Your task to perform on an android device: empty trash in google photos Image 0: 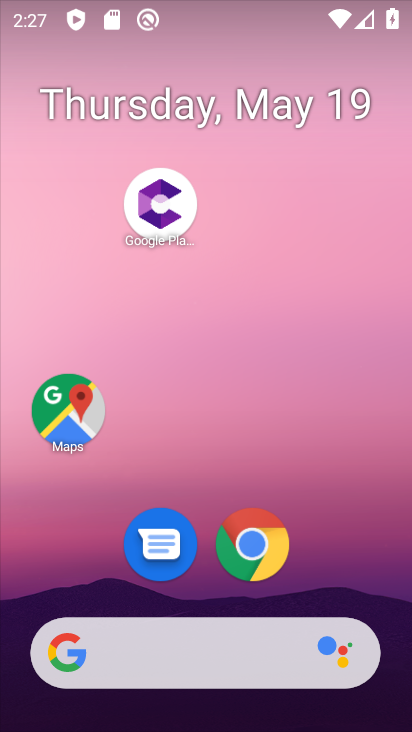
Step 0: drag from (292, 661) to (320, 213)
Your task to perform on an android device: empty trash in google photos Image 1: 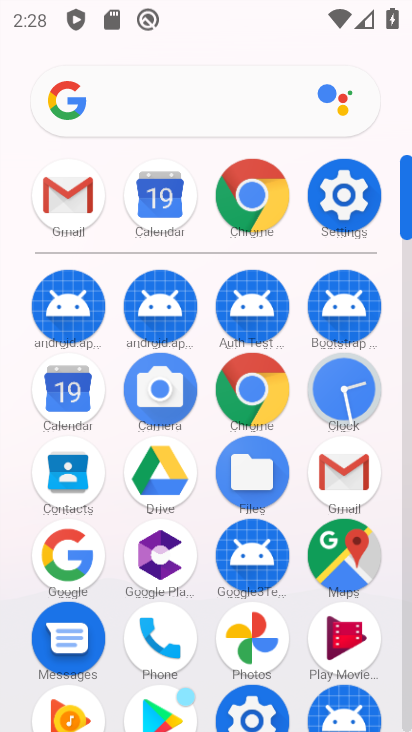
Step 1: drag from (222, 609) to (218, 459)
Your task to perform on an android device: empty trash in google photos Image 2: 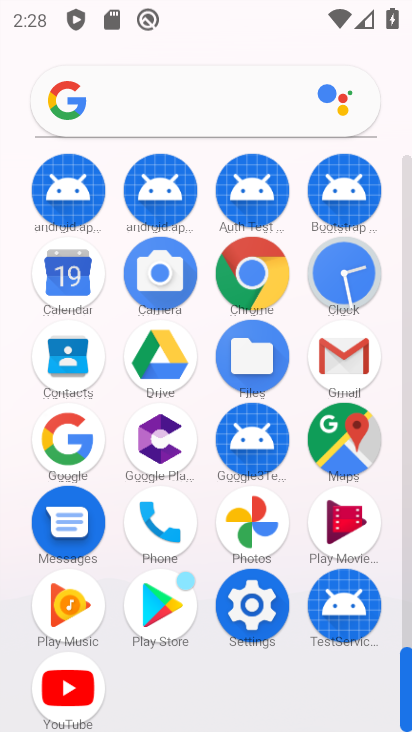
Step 2: click (243, 514)
Your task to perform on an android device: empty trash in google photos Image 3: 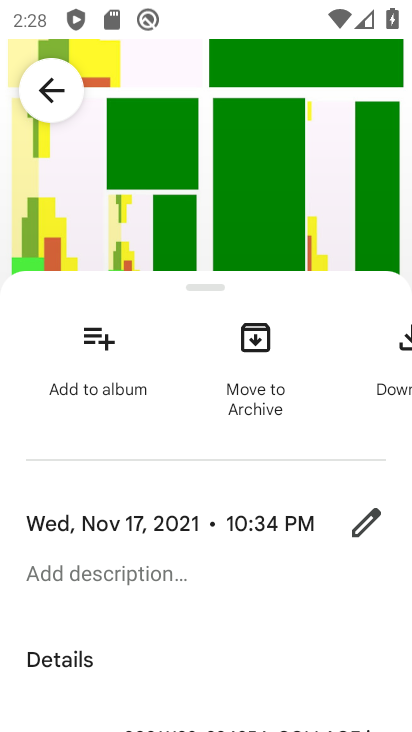
Step 3: click (47, 82)
Your task to perform on an android device: empty trash in google photos Image 4: 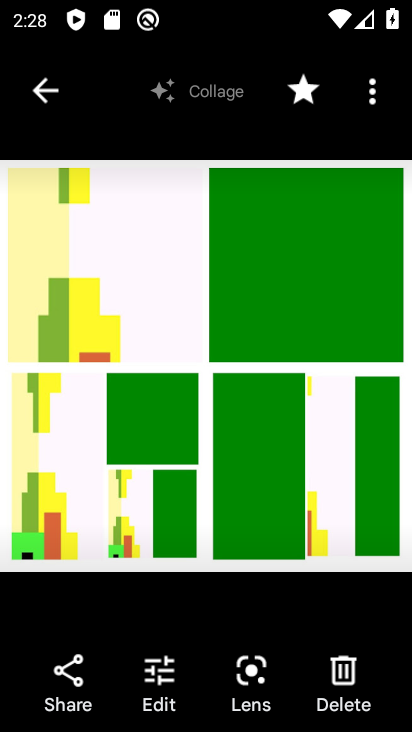
Step 4: click (47, 82)
Your task to perform on an android device: empty trash in google photos Image 5: 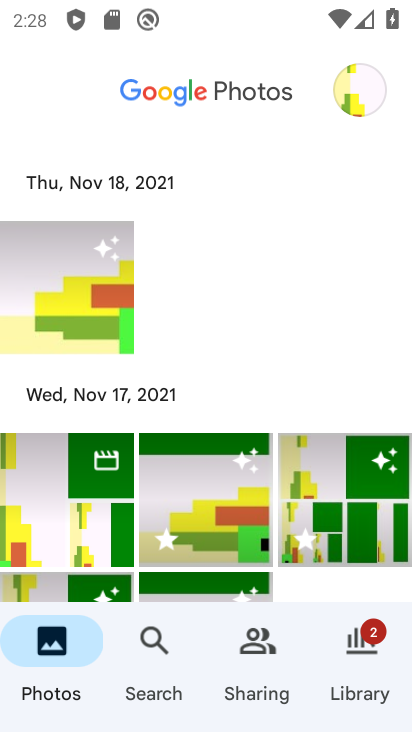
Step 5: click (152, 645)
Your task to perform on an android device: empty trash in google photos Image 6: 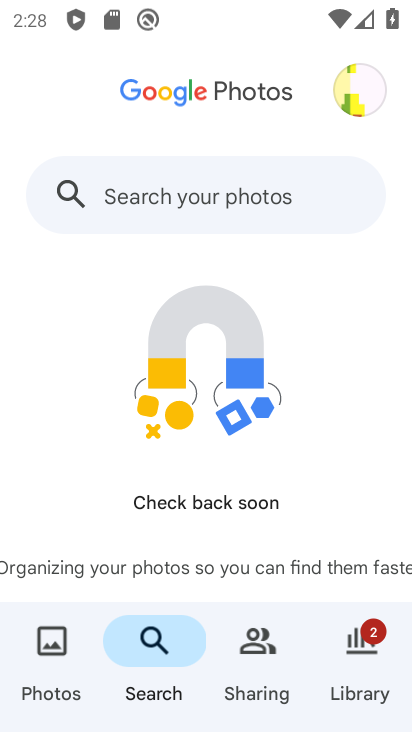
Step 6: click (174, 178)
Your task to perform on an android device: empty trash in google photos Image 7: 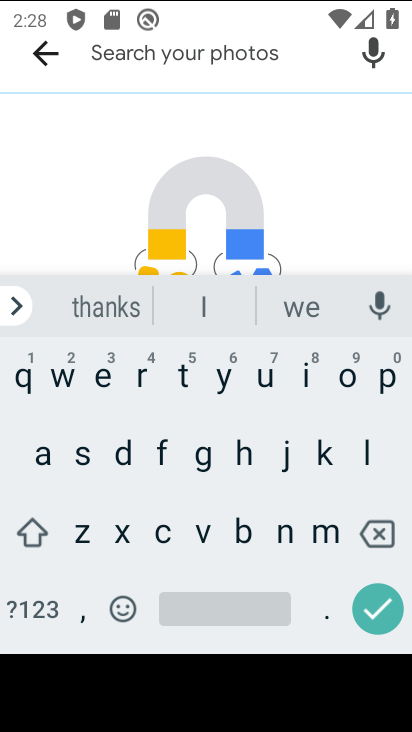
Step 7: click (184, 378)
Your task to perform on an android device: empty trash in google photos Image 8: 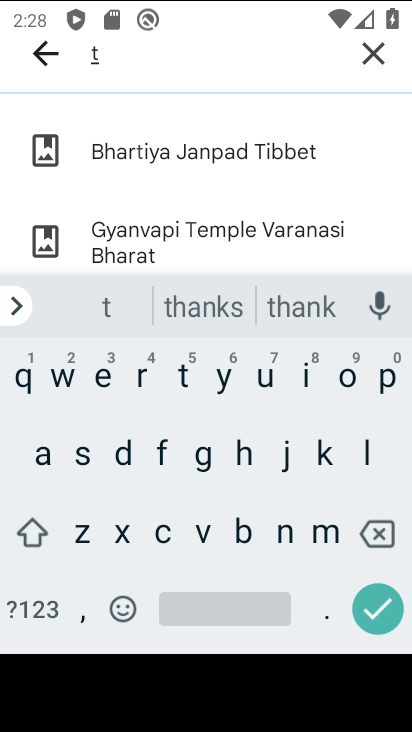
Step 8: click (138, 383)
Your task to perform on an android device: empty trash in google photos Image 9: 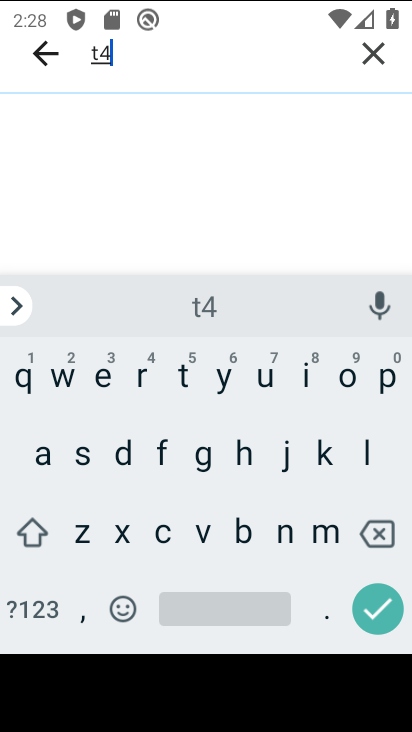
Step 9: click (39, 460)
Your task to perform on an android device: empty trash in google photos Image 10: 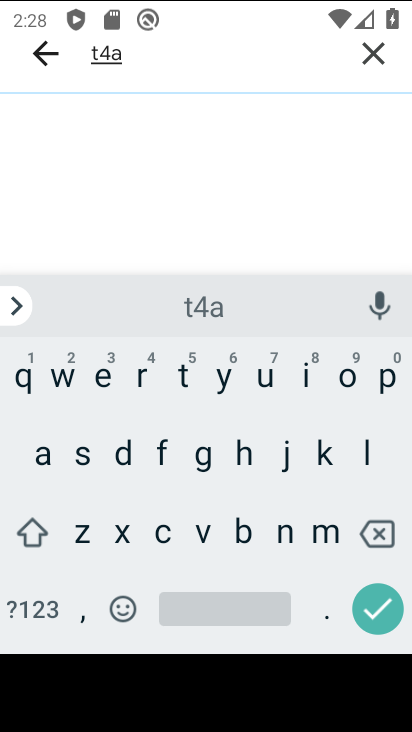
Step 10: click (375, 531)
Your task to perform on an android device: empty trash in google photos Image 11: 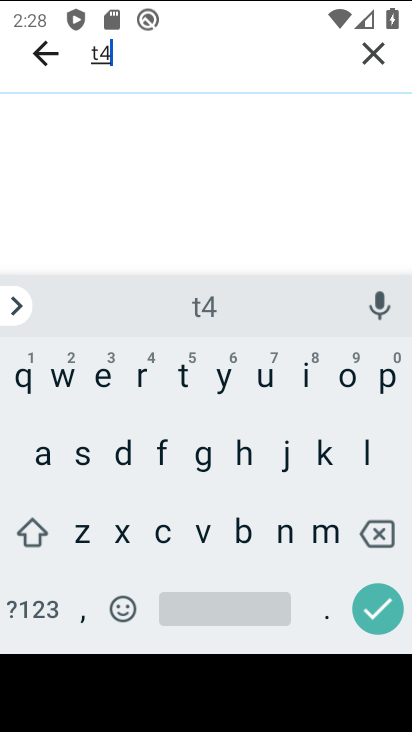
Step 11: click (379, 532)
Your task to perform on an android device: empty trash in google photos Image 12: 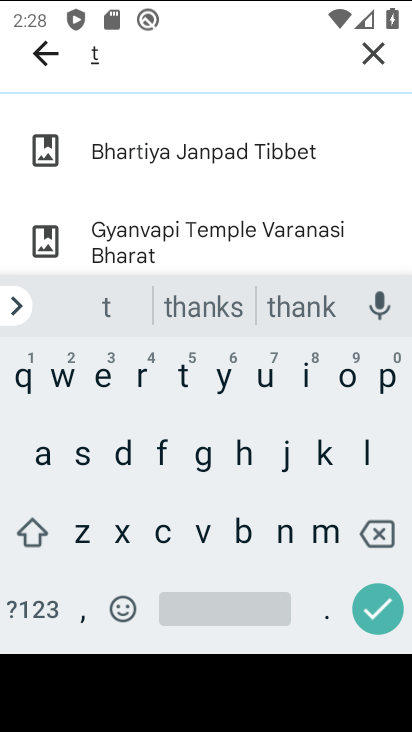
Step 12: click (179, 377)
Your task to perform on an android device: empty trash in google photos Image 13: 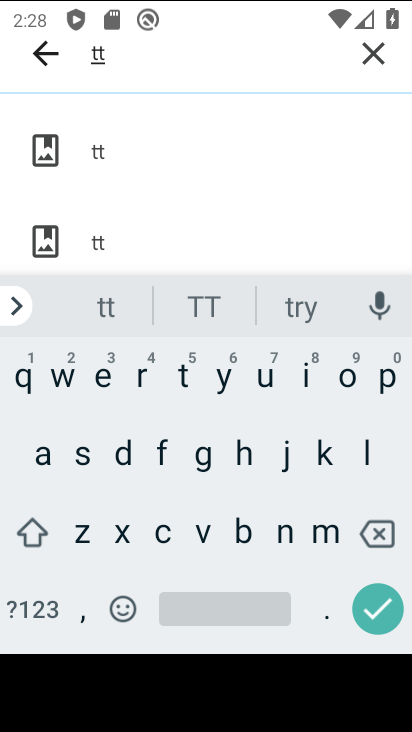
Step 13: click (379, 543)
Your task to perform on an android device: empty trash in google photos Image 14: 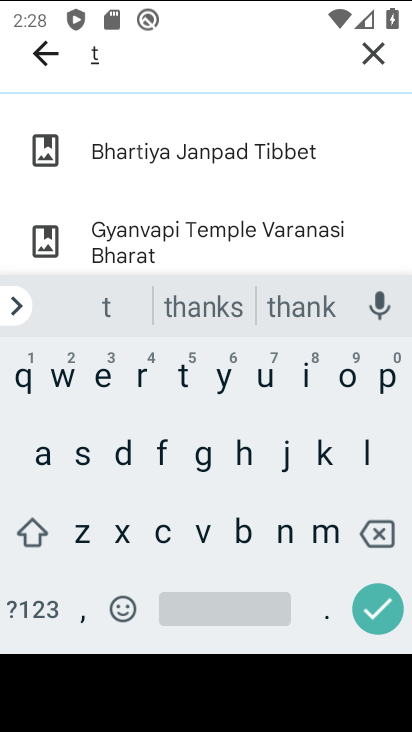
Step 14: click (139, 384)
Your task to perform on an android device: empty trash in google photos Image 15: 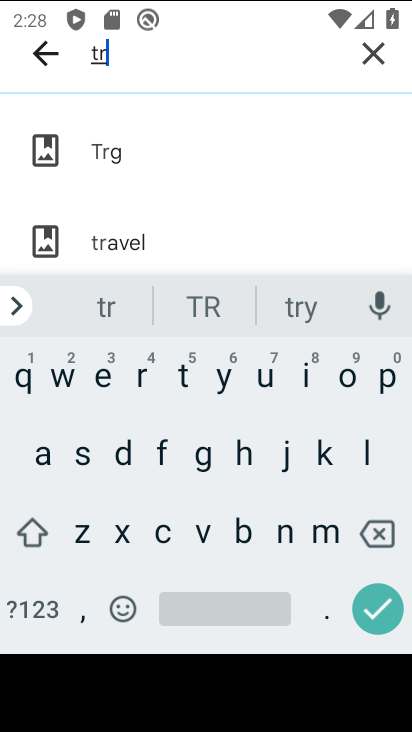
Step 15: click (36, 470)
Your task to perform on an android device: empty trash in google photos Image 16: 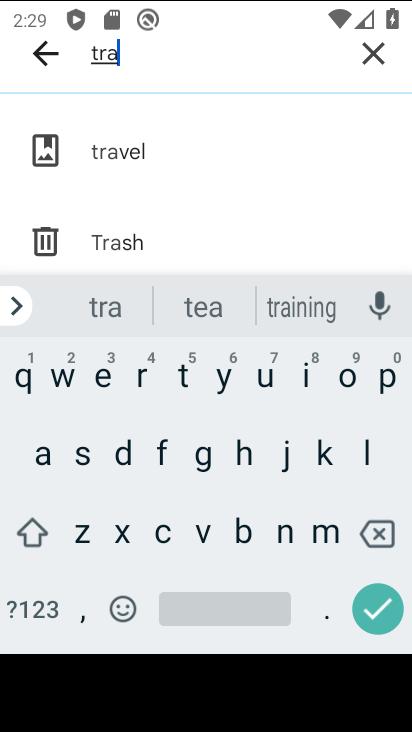
Step 16: click (128, 241)
Your task to perform on an android device: empty trash in google photos Image 17: 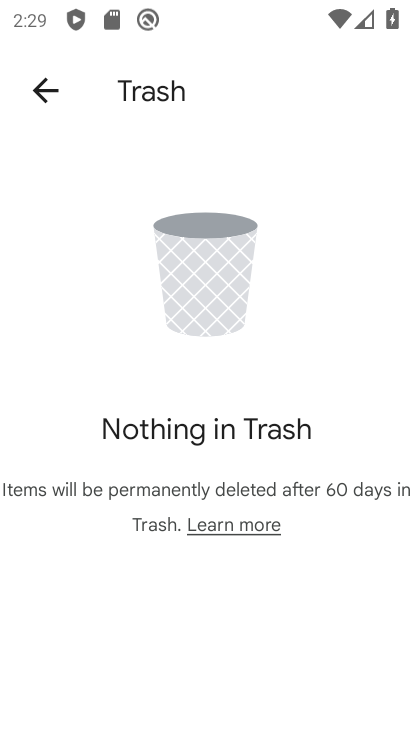
Step 17: task complete